Your task to perform on an android device: Clear all items from cart on bestbuy.com. Search for "beats solo 3" on bestbuy.com, select the first entry, add it to the cart, then select checkout. Image 0: 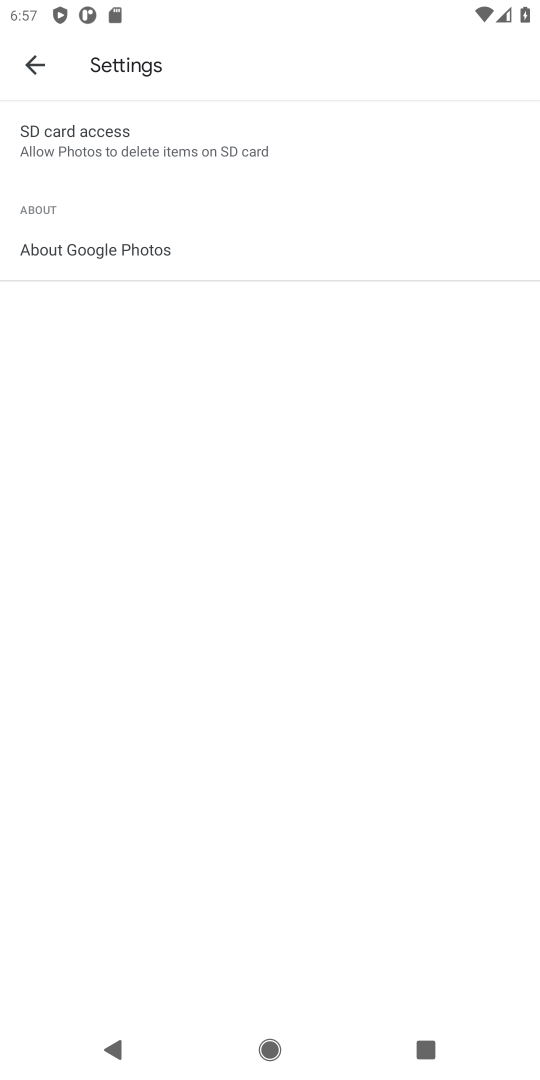
Step 0: press home button
Your task to perform on an android device: Clear all items from cart on bestbuy.com. Search for "beats solo 3" on bestbuy.com, select the first entry, add it to the cart, then select checkout. Image 1: 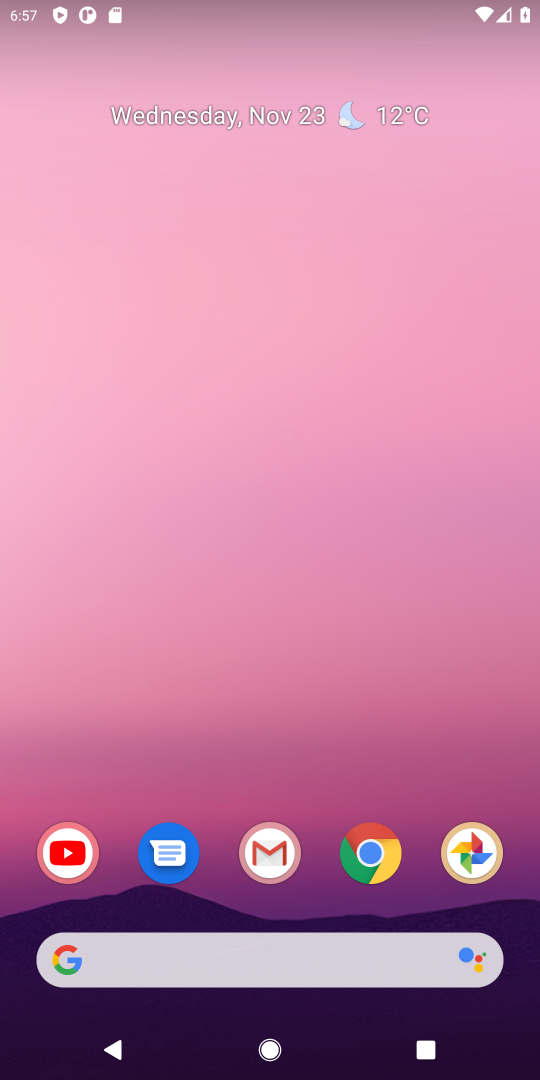
Step 1: click (368, 864)
Your task to perform on an android device: Clear all items from cart on bestbuy.com. Search for "beats solo 3" on bestbuy.com, select the first entry, add it to the cart, then select checkout. Image 2: 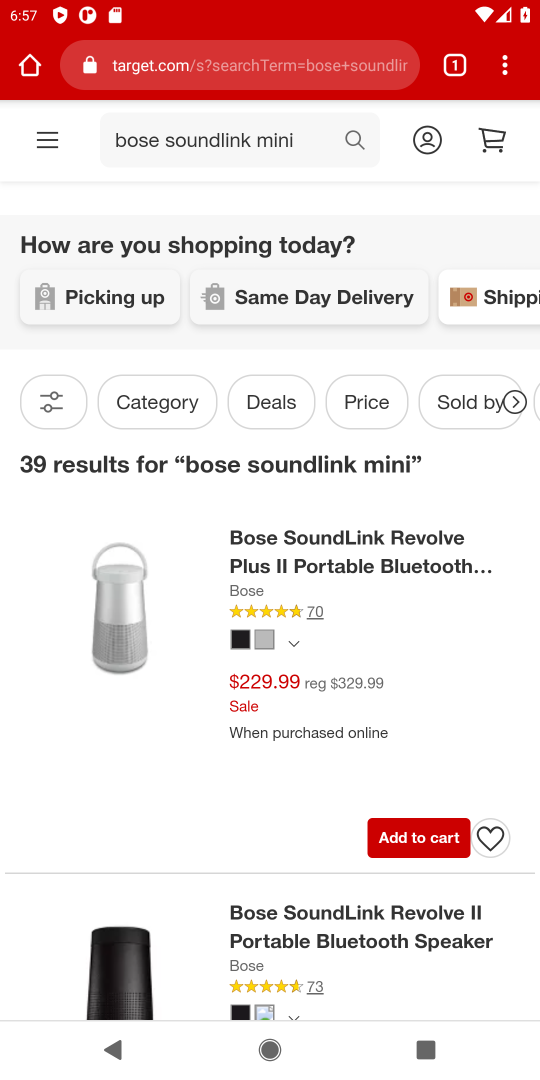
Step 2: click (201, 75)
Your task to perform on an android device: Clear all items from cart on bestbuy.com. Search for "beats solo 3" on bestbuy.com, select the first entry, add it to the cart, then select checkout. Image 3: 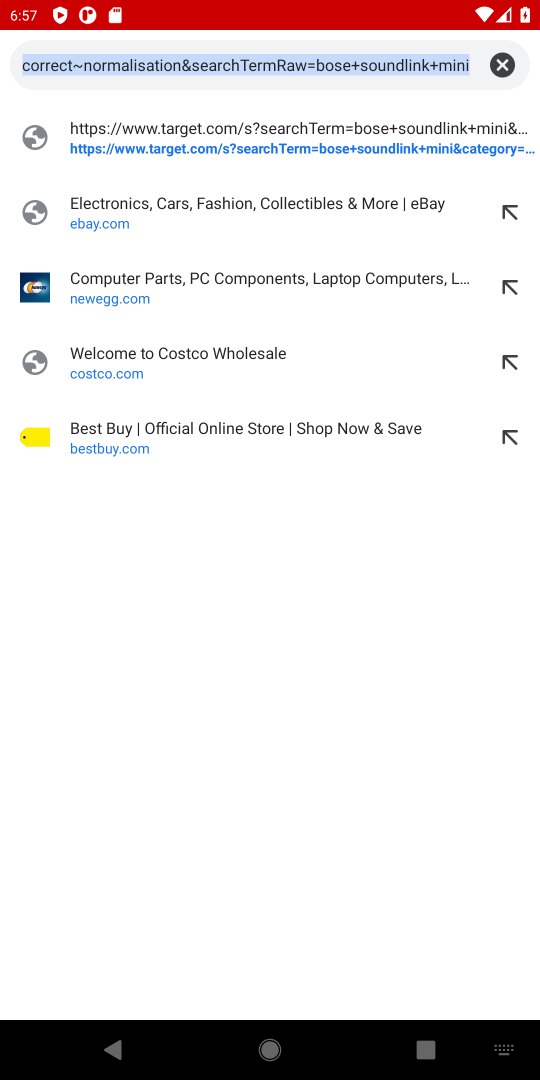
Step 3: click (115, 432)
Your task to perform on an android device: Clear all items from cart on bestbuy.com. Search for "beats solo 3" on bestbuy.com, select the first entry, add it to the cart, then select checkout. Image 4: 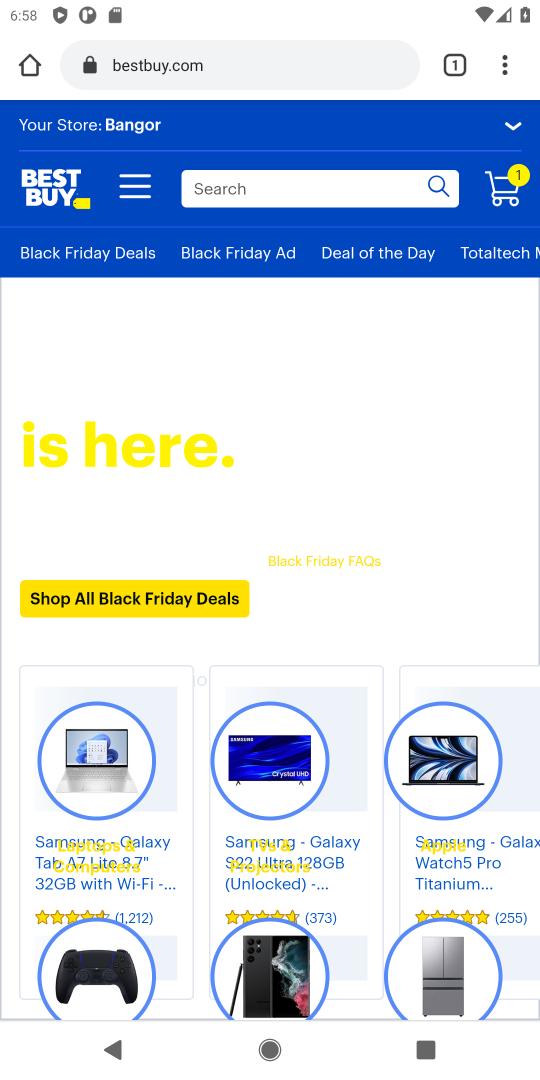
Step 4: click (502, 194)
Your task to perform on an android device: Clear all items from cart on bestbuy.com. Search for "beats solo 3" on bestbuy.com, select the first entry, add it to the cart, then select checkout. Image 5: 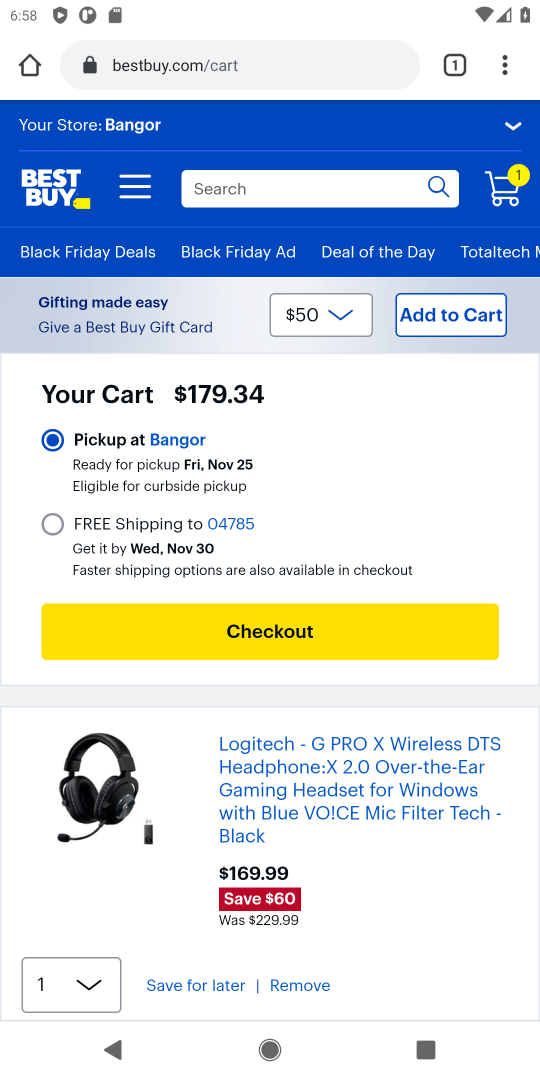
Step 5: drag from (311, 731) to (318, 385)
Your task to perform on an android device: Clear all items from cart on bestbuy.com. Search for "beats solo 3" on bestbuy.com, select the first entry, add it to the cart, then select checkout. Image 6: 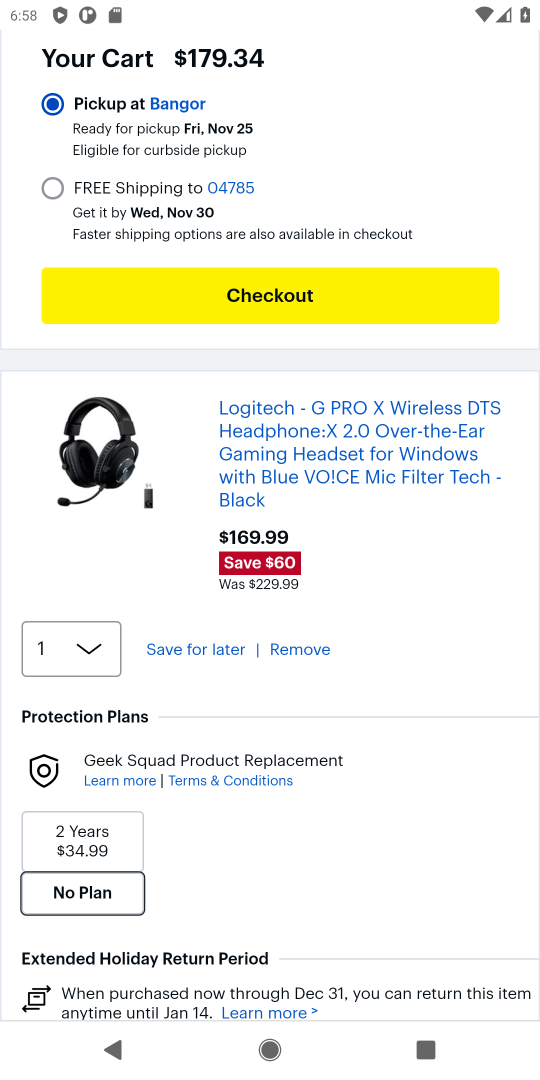
Step 6: click (298, 646)
Your task to perform on an android device: Clear all items from cart on bestbuy.com. Search for "beats solo 3" on bestbuy.com, select the first entry, add it to the cart, then select checkout. Image 7: 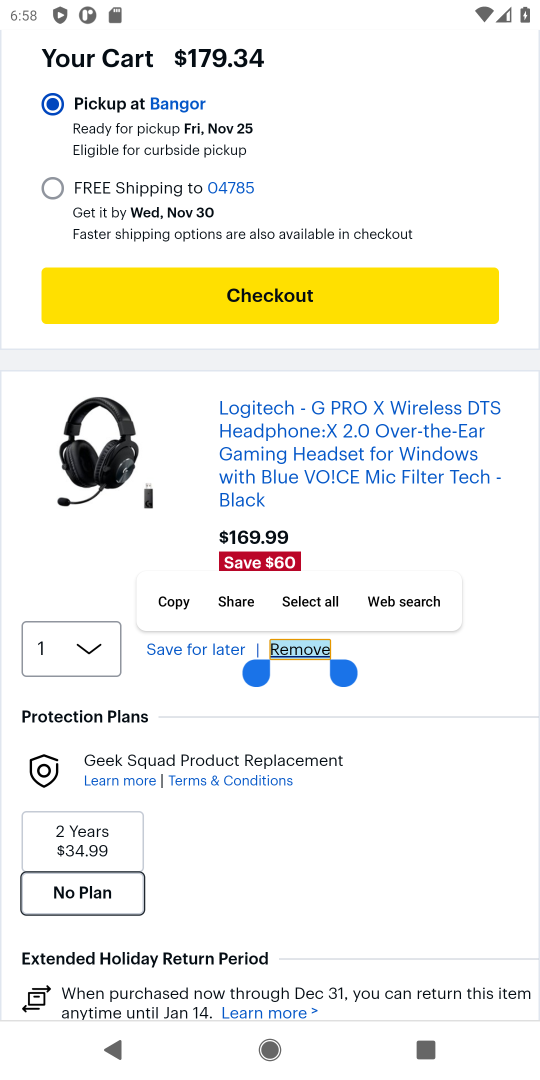
Step 7: click (298, 652)
Your task to perform on an android device: Clear all items from cart on bestbuy.com. Search for "beats solo 3" on bestbuy.com, select the first entry, add it to the cart, then select checkout. Image 8: 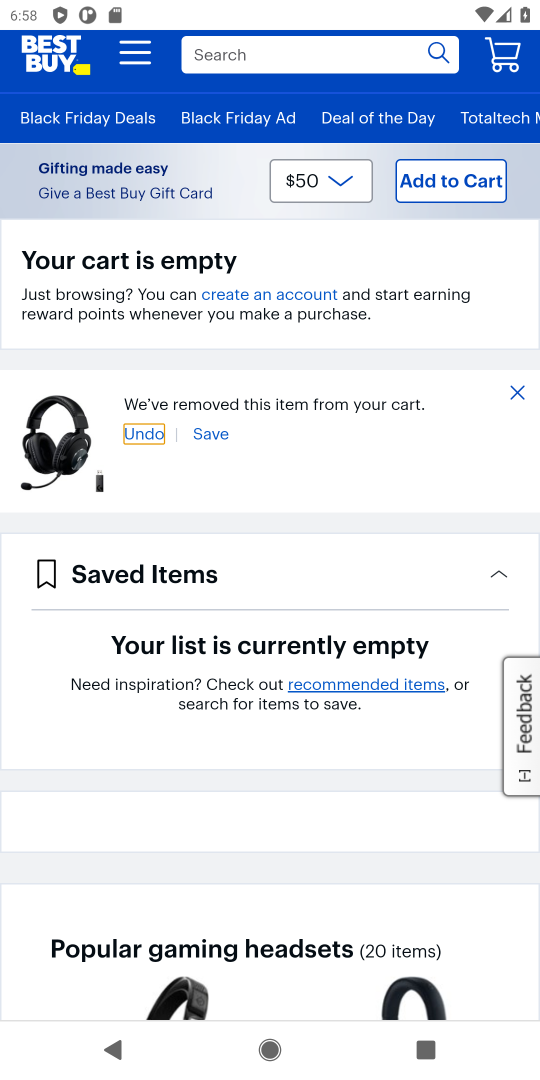
Step 8: drag from (247, 175) to (272, 344)
Your task to perform on an android device: Clear all items from cart on bestbuy.com. Search for "beats solo 3" on bestbuy.com, select the first entry, add it to the cart, then select checkout. Image 9: 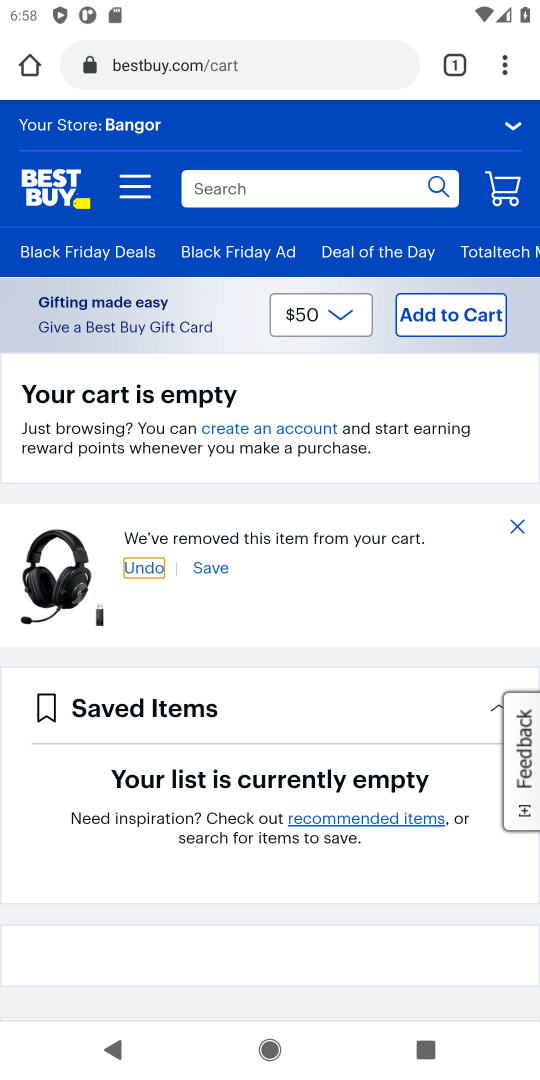
Step 9: click (223, 193)
Your task to perform on an android device: Clear all items from cart on bestbuy.com. Search for "beats solo 3" on bestbuy.com, select the first entry, add it to the cart, then select checkout. Image 10: 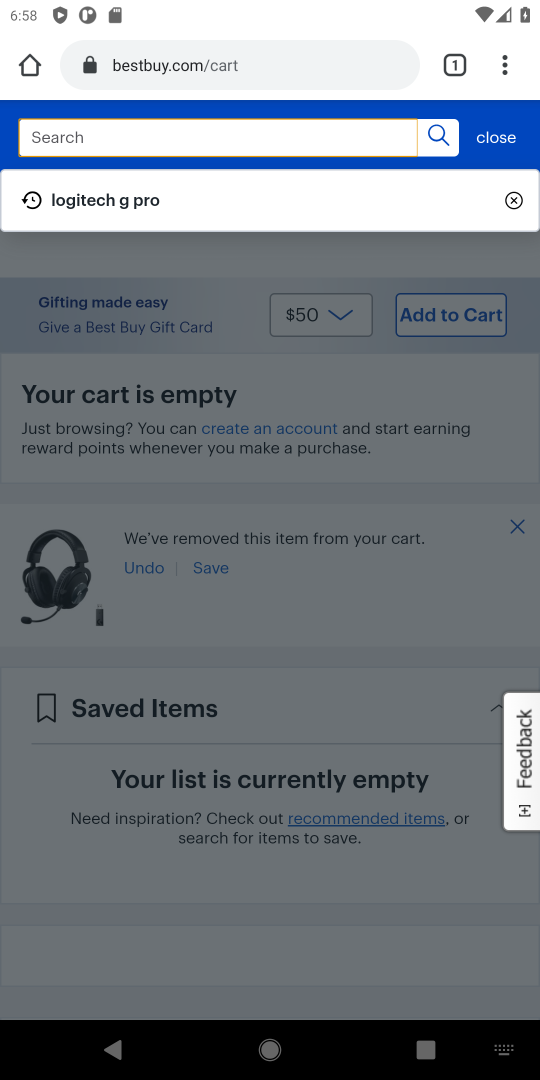
Step 10: type "beats solo 3"
Your task to perform on an android device: Clear all items from cart on bestbuy.com. Search for "beats solo 3" on bestbuy.com, select the first entry, add it to the cart, then select checkout. Image 11: 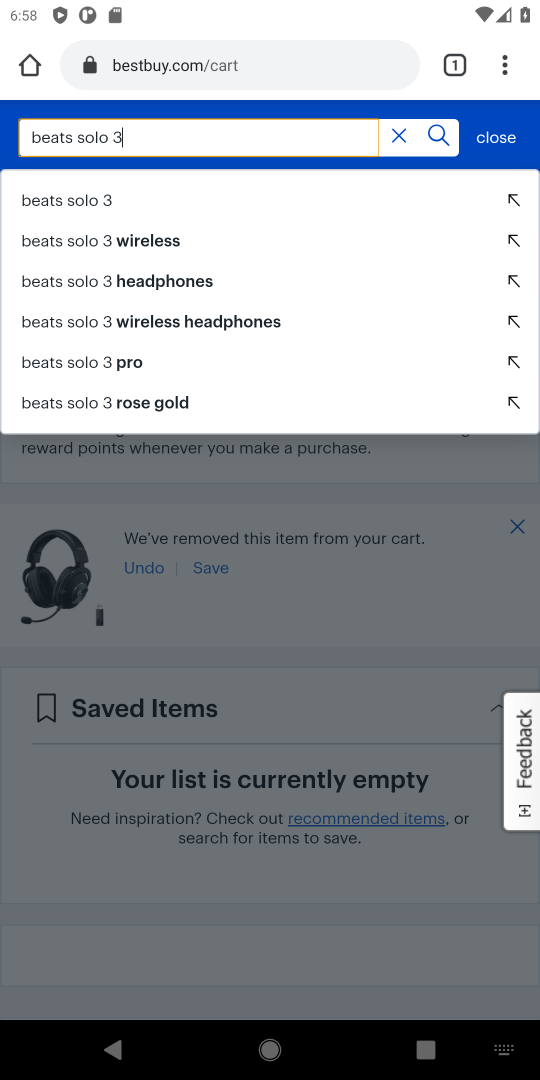
Step 11: click (72, 204)
Your task to perform on an android device: Clear all items from cart on bestbuy.com. Search for "beats solo 3" on bestbuy.com, select the first entry, add it to the cart, then select checkout. Image 12: 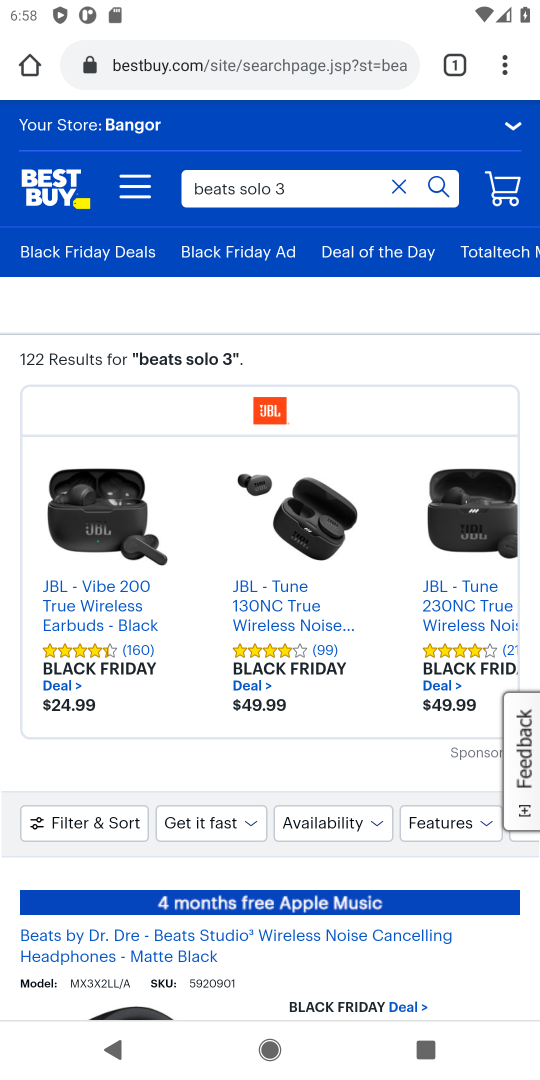
Step 12: drag from (227, 747) to (241, 317)
Your task to perform on an android device: Clear all items from cart on bestbuy.com. Search for "beats solo 3" on bestbuy.com, select the first entry, add it to the cart, then select checkout. Image 13: 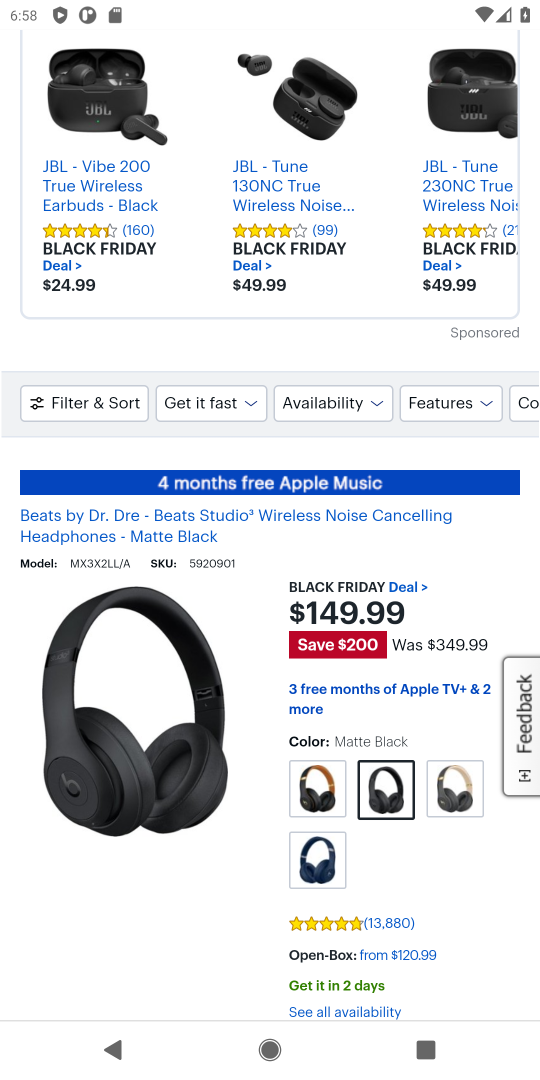
Step 13: drag from (174, 816) to (184, 629)
Your task to perform on an android device: Clear all items from cart on bestbuy.com. Search for "beats solo 3" on bestbuy.com, select the first entry, add it to the cart, then select checkout. Image 14: 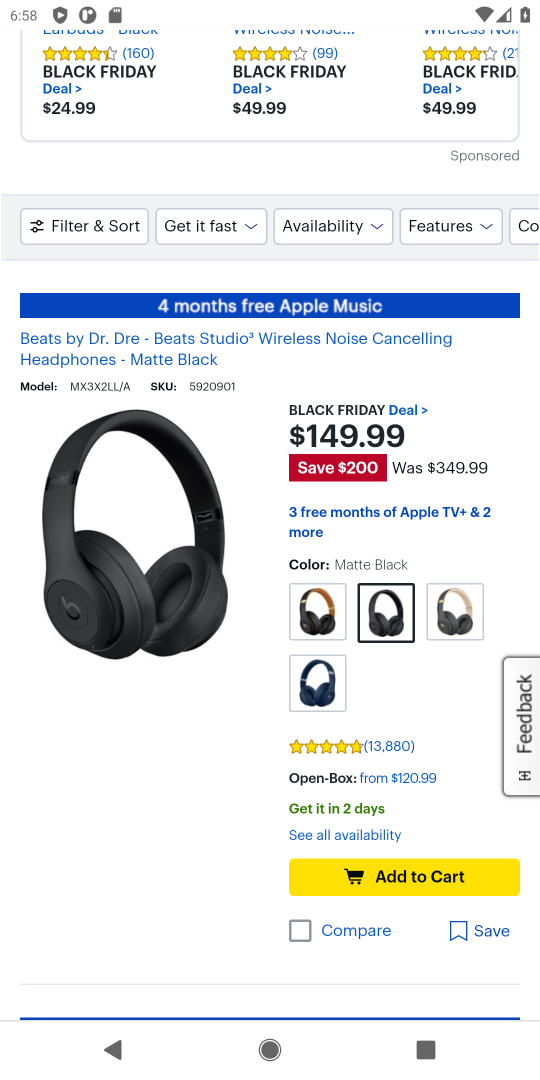
Step 14: click (418, 874)
Your task to perform on an android device: Clear all items from cart on bestbuy.com. Search for "beats solo 3" on bestbuy.com, select the first entry, add it to the cart, then select checkout. Image 15: 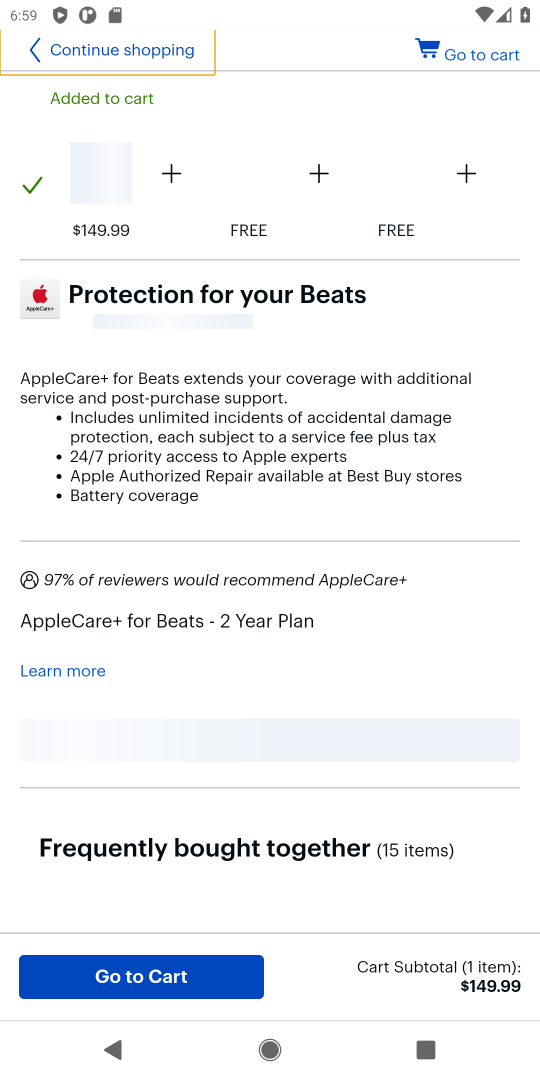
Step 15: click (470, 62)
Your task to perform on an android device: Clear all items from cart on bestbuy.com. Search for "beats solo 3" on bestbuy.com, select the first entry, add it to the cart, then select checkout. Image 16: 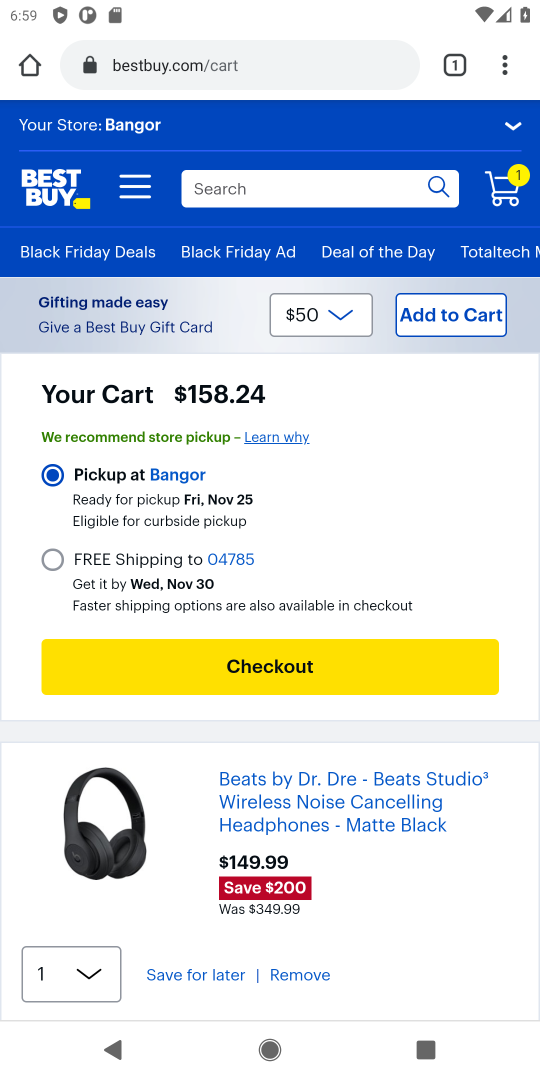
Step 16: click (274, 665)
Your task to perform on an android device: Clear all items from cart on bestbuy.com. Search for "beats solo 3" on bestbuy.com, select the first entry, add it to the cart, then select checkout. Image 17: 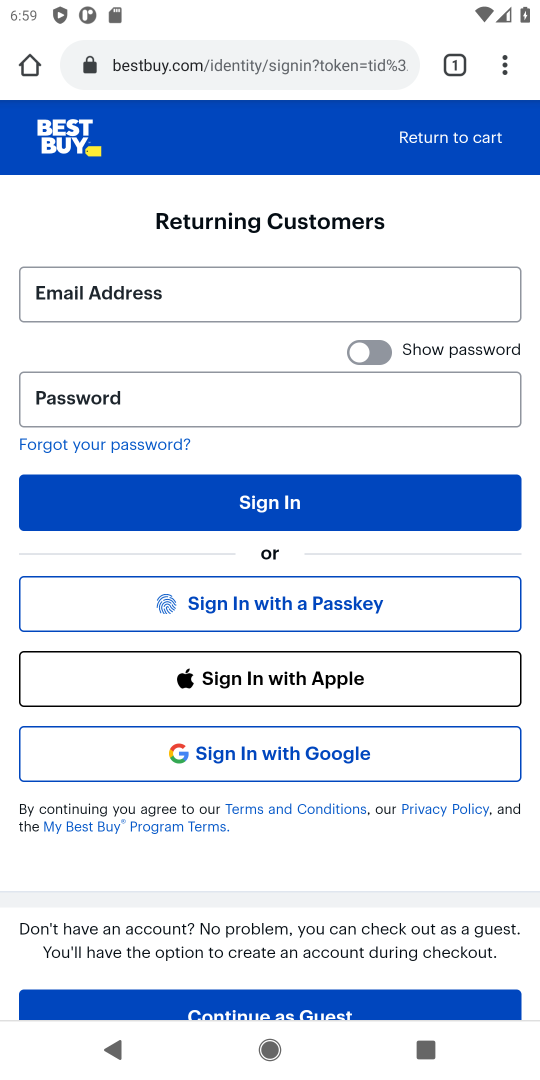
Step 17: task complete